Your task to perform on an android device: set the timer Image 0: 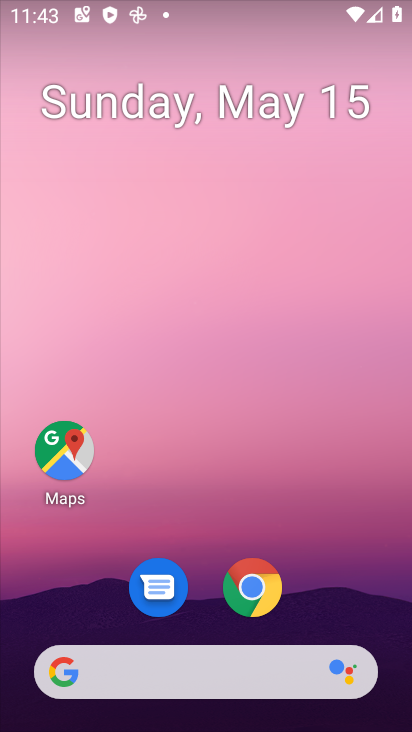
Step 0: drag from (390, 628) to (323, 65)
Your task to perform on an android device: set the timer Image 1: 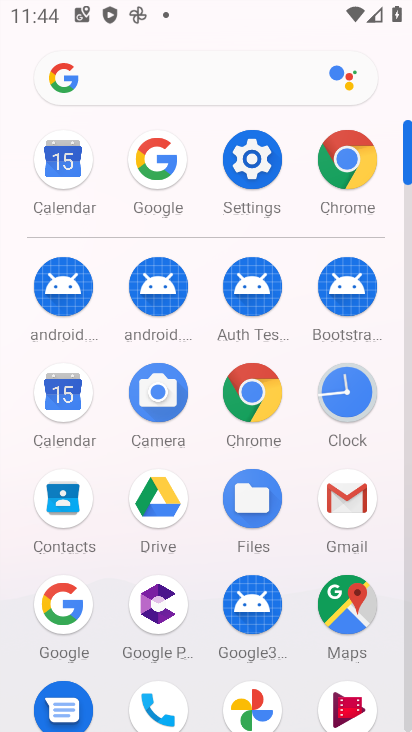
Step 1: click (337, 398)
Your task to perform on an android device: set the timer Image 2: 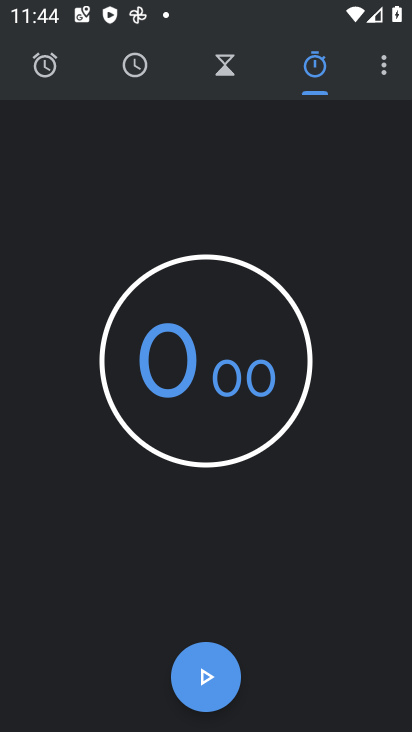
Step 2: click (386, 64)
Your task to perform on an android device: set the timer Image 3: 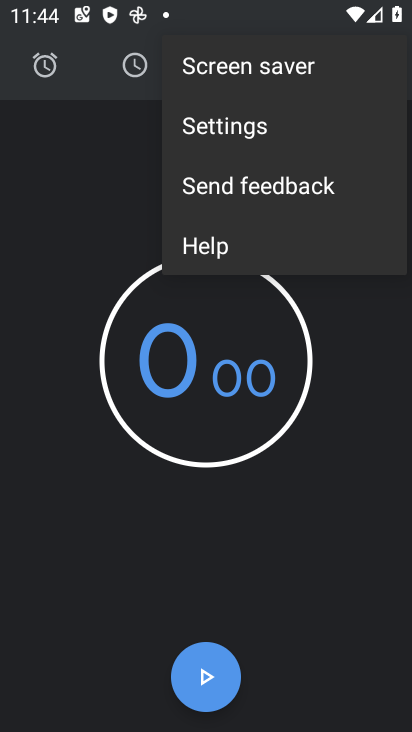
Step 3: click (251, 110)
Your task to perform on an android device: set the timer Image 4: 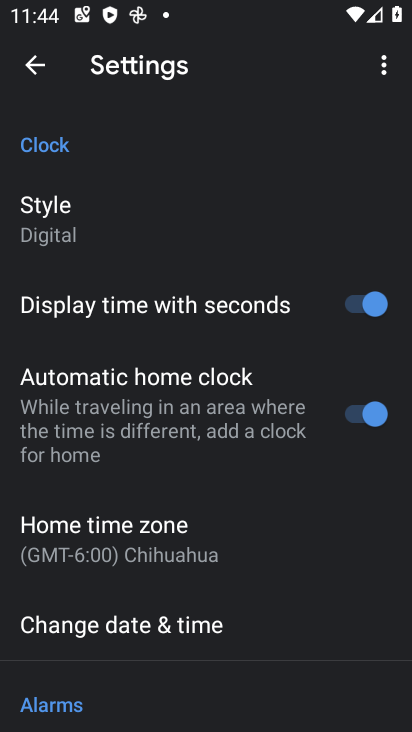
Step 4: click (188, 548)
Your task to perform on an android device: set the timer Image 5: 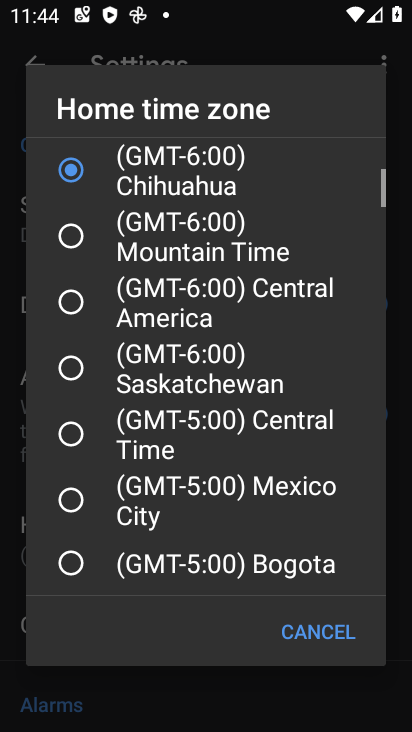
Step 5: click (182, 451)
Your task to perform on an android device: set the timer Image 6: 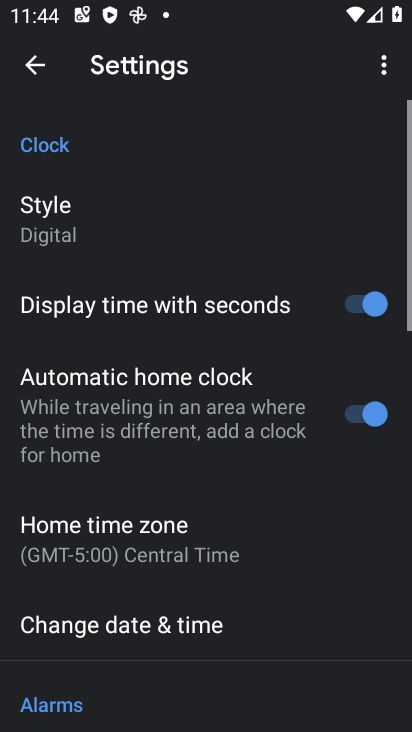
Step 6: task complete